Your task to perform on an android device: add a contact Image 0: 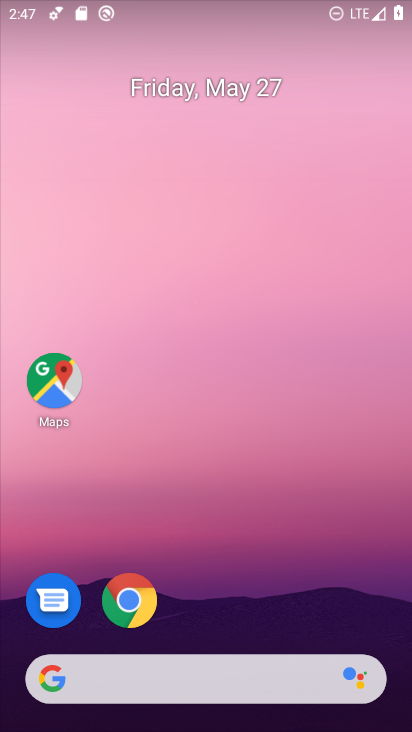
Step 0: drag from (202, 721) to (200, 310)
Your task to perform on an android device: add a contact Image 1: 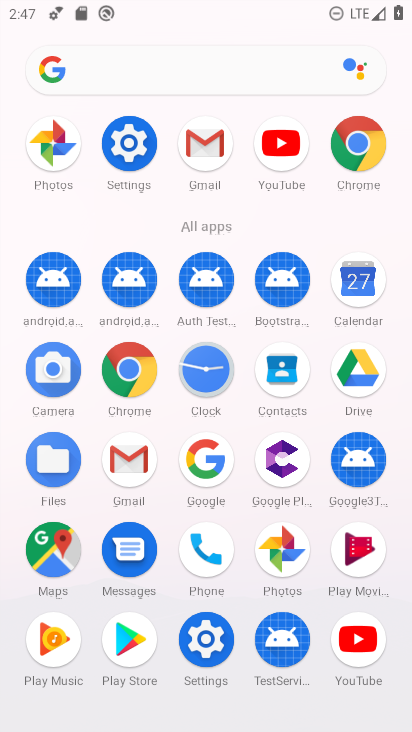
Step 1: click (274, 380)
Your task to perform on an android device: add a contact Image 2: 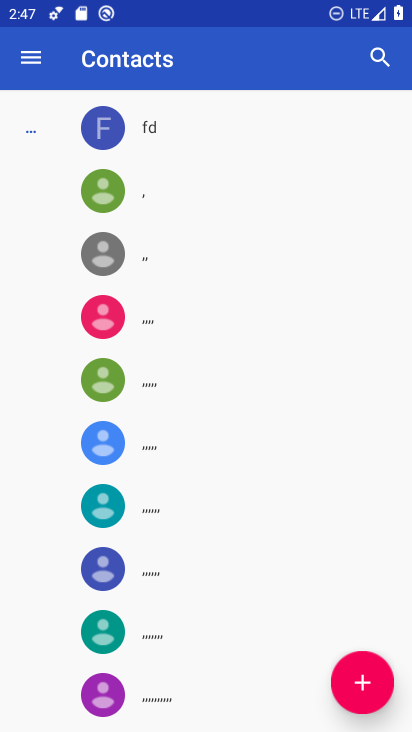
Step 2: click (359, 682)
Your task to perform on an android device: add a contact Image 3: 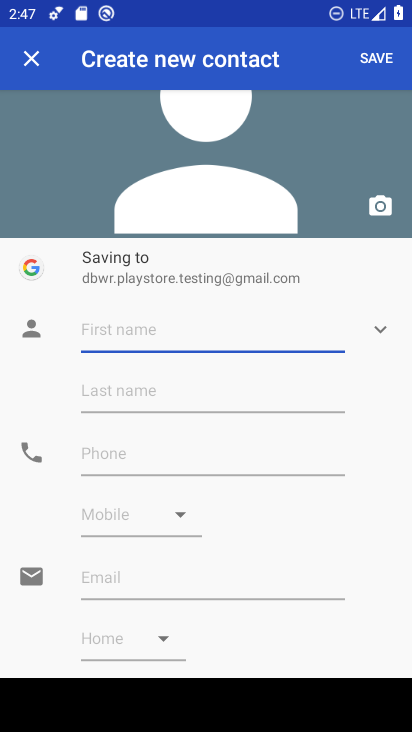
Step 3: type "capitan rogers"
Your task to perform on an android device: add a contact Image 4: 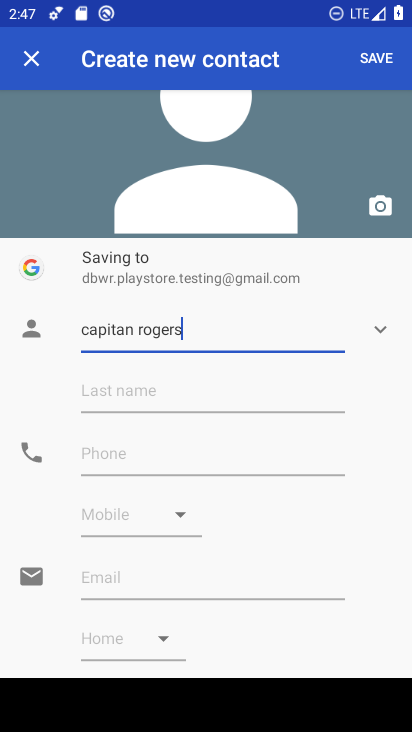
Step 4: click (120, 448)
Your task to perform on an android device: add a contact Image 5: 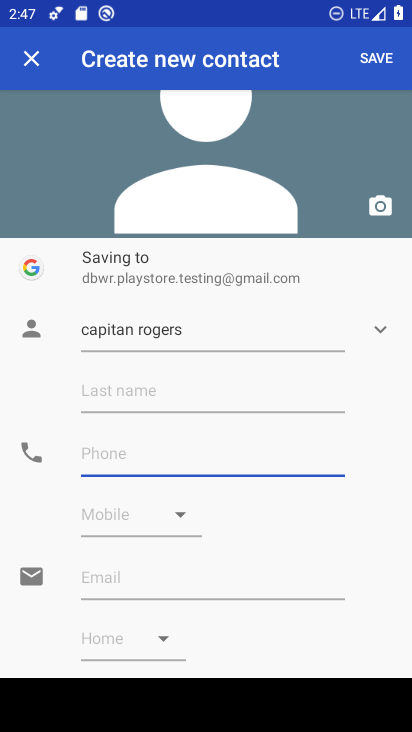
Step 5: type "898765"
Your task to perform on an android device: add a contact Image 6: 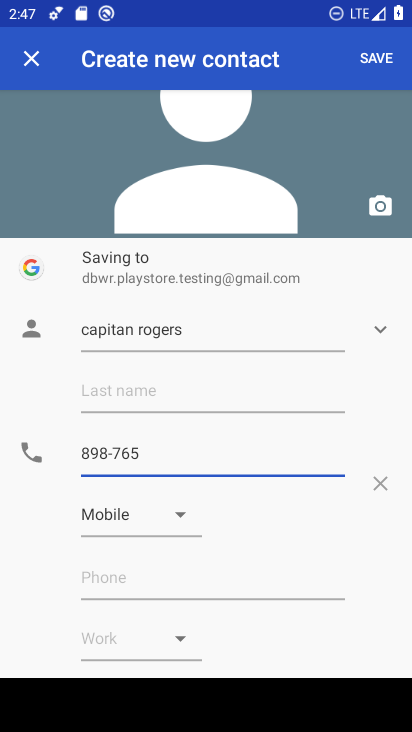
Step 6: click (376, 56)
Your task to perform on an android device: add a contact Image 7: 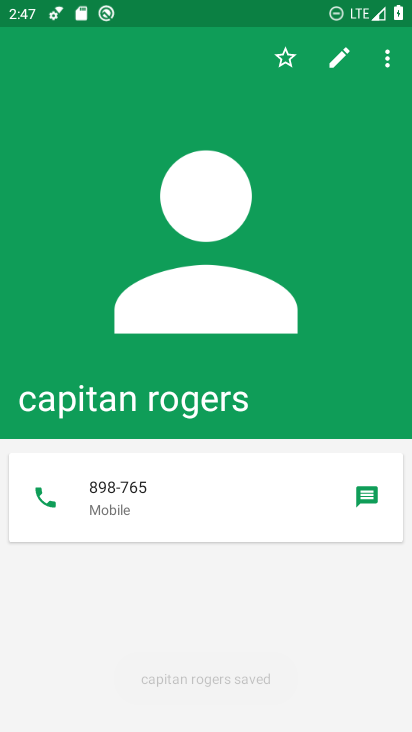
Step 7: task complete